Your task to perform on an android device: clear all cookies in the chrome app Image 0: 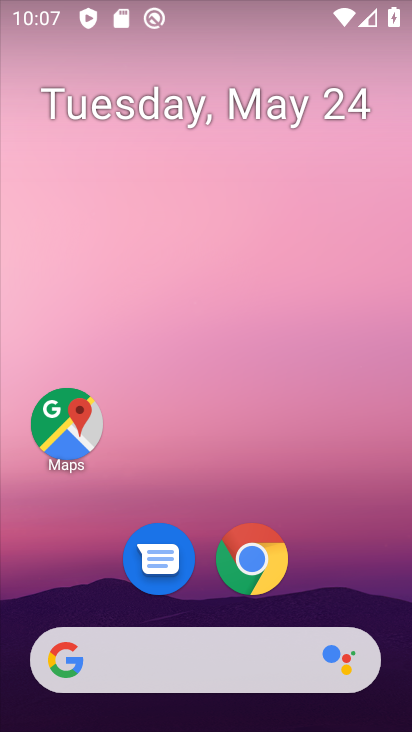
Step 0: click (252, 567)
Your task to perform on an android device: clear all cookies in the chrome app Image 1: 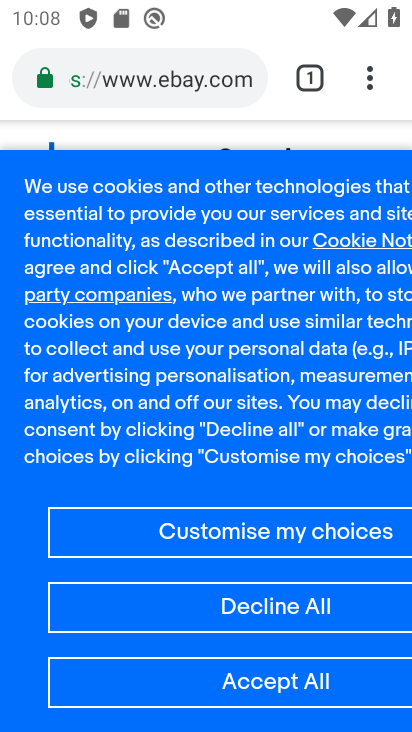
Step 1: drag from (368, 71) to (108, 402)
Your task to perform on an android device: clear all cookies in the chrome app Image 2: 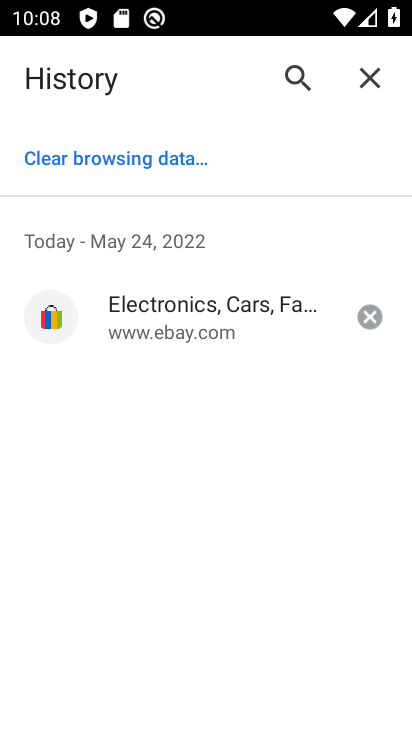
Step 2: click (101, 164)
Your task to perform on an android device: clear all cookies in the chrome app Image 3: 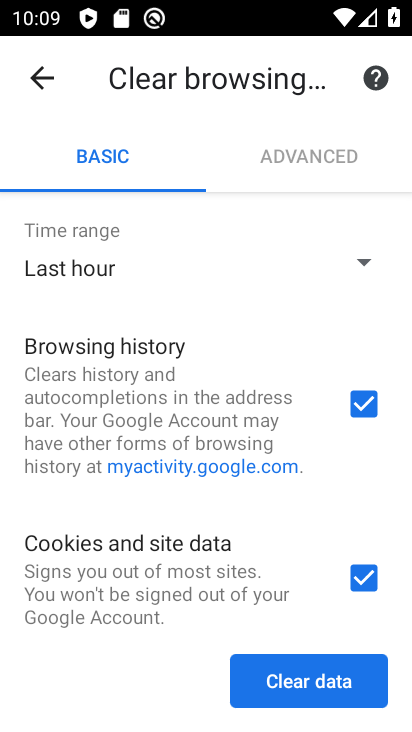
Step 3: click (306, 677)
Your task to perform on an android device: clear all cookies in the chrome app Image 4: 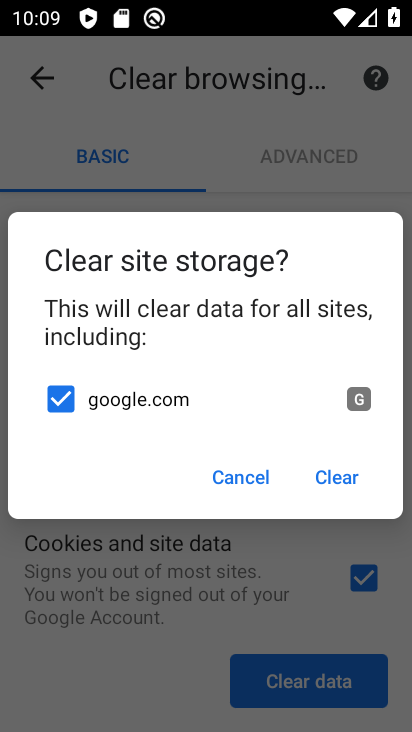
Step 4: click (344, 483)
Your task to perform on an android device: clear all cookies in the chrome app Image 5: 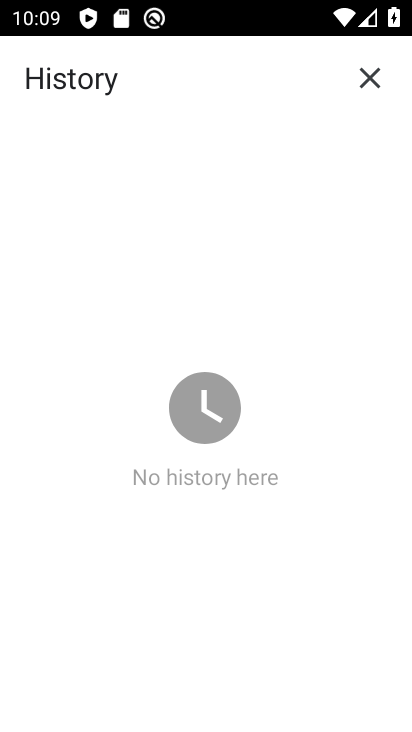
Step 5: task complete